Your task to perform on an android device: Open notification settings Image 0: 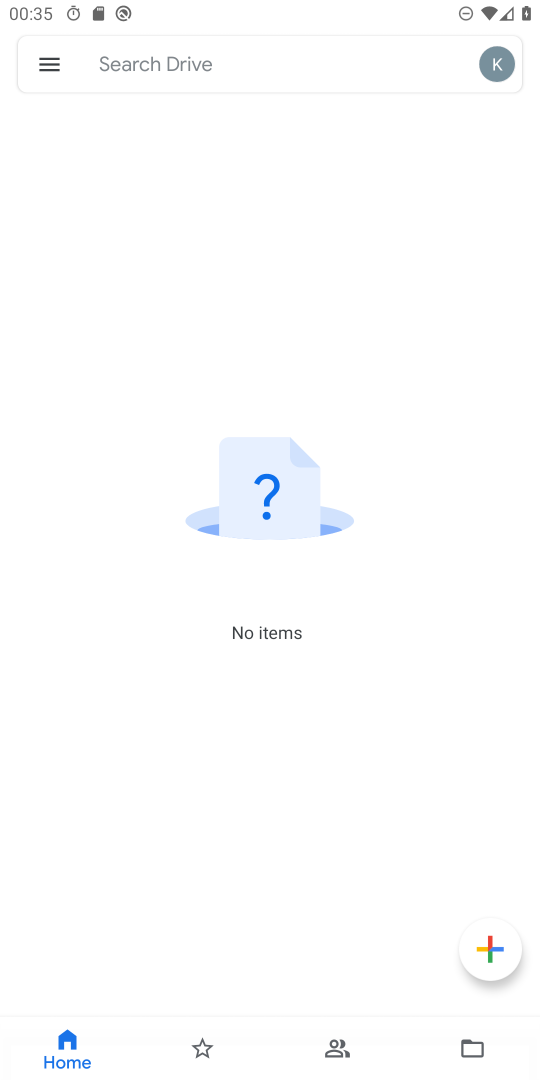
Step 0: press home button
Your task to perform on an android device: Open notification settings Image 1: 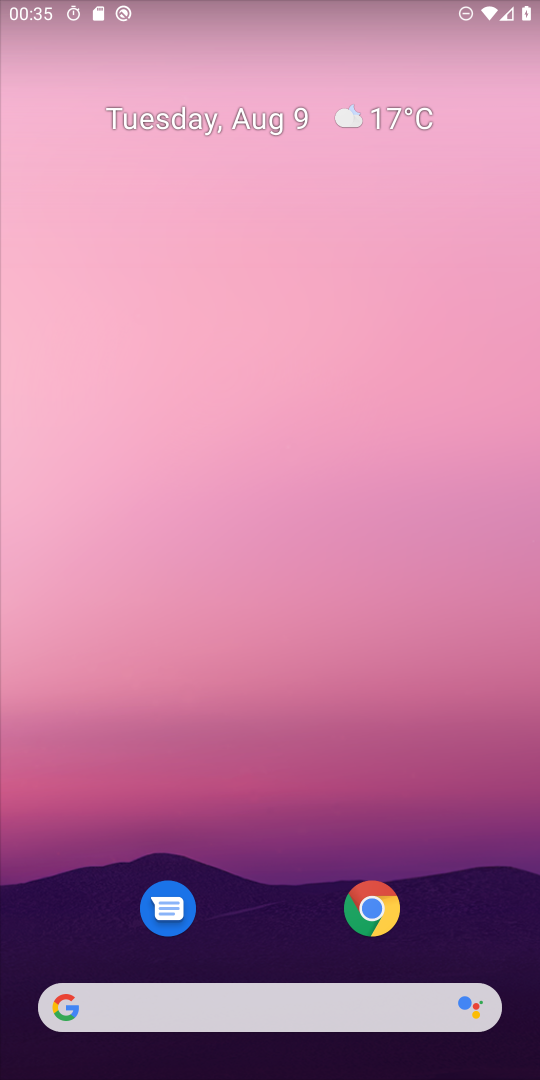
Step 1: drag from (485, 920) to (329, 85)
Your task to perform on an android device: Open notification settings Image 2: 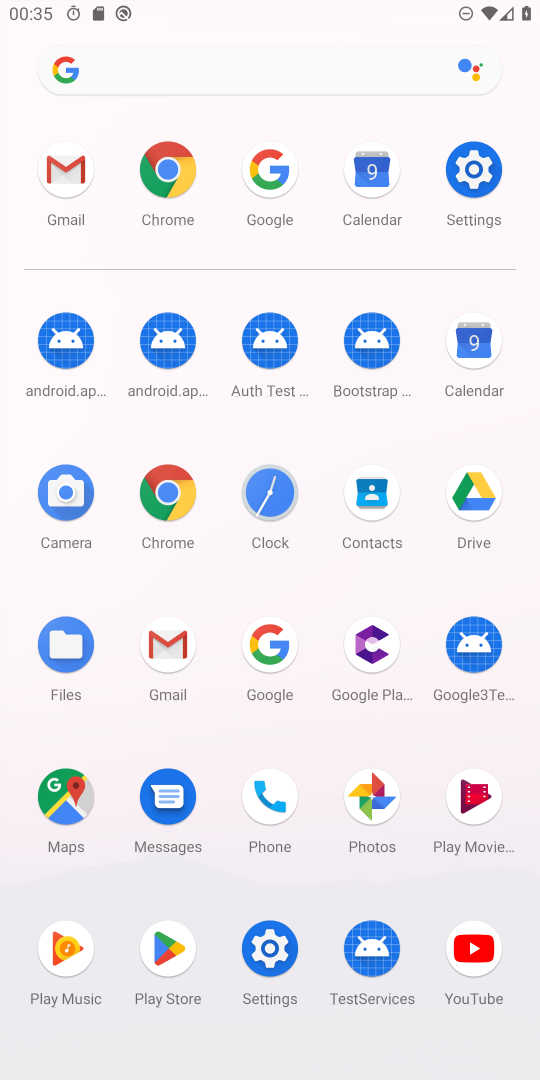
Step 2: click (467, 183)
Your task to perform on an android device: Open notification settings Image 3: 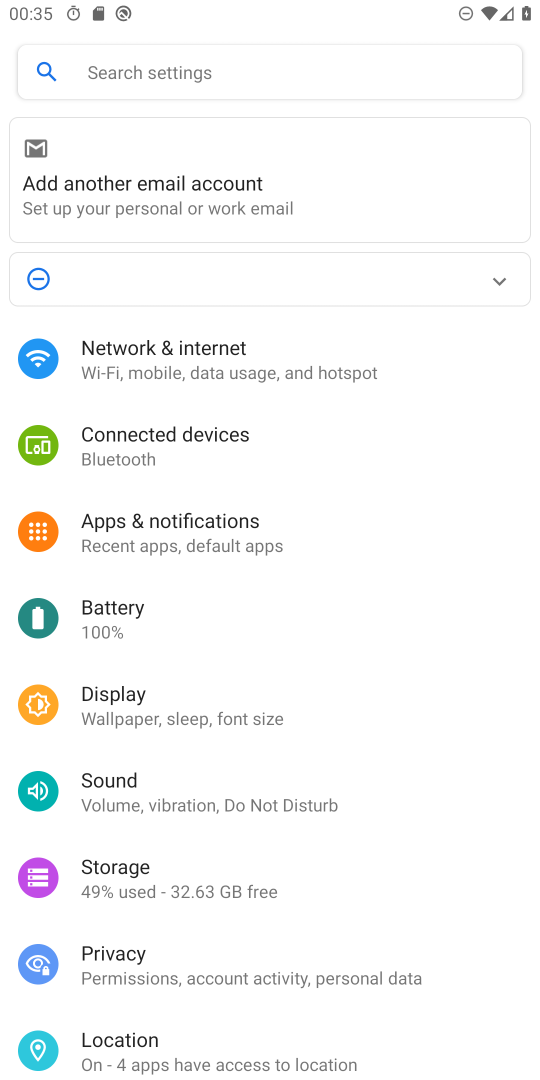
Step 3: click (244, 542)
Your task to perform on an android device: Open notification settings Image 4: 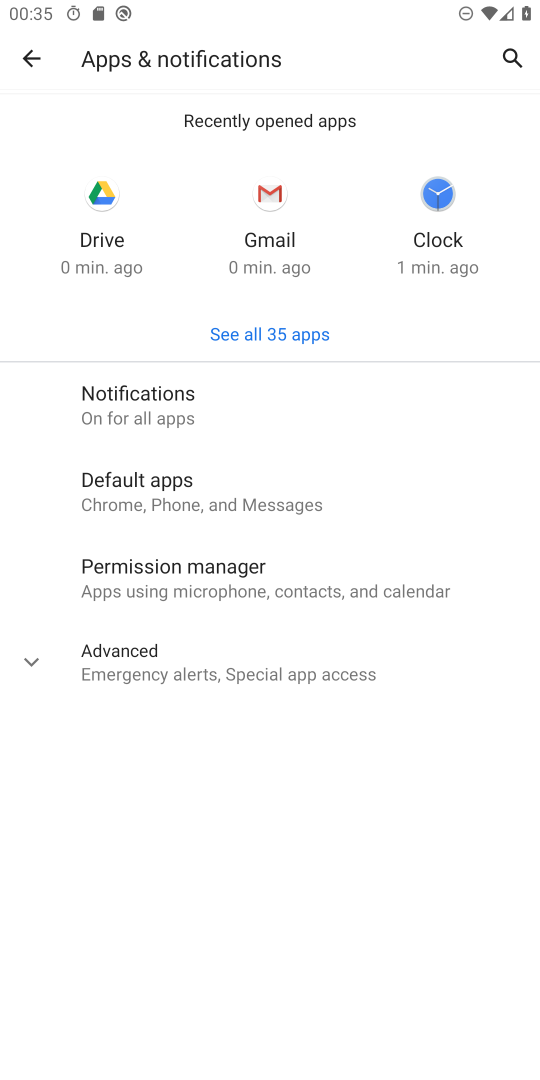
Step 4: click (226, 407)
Your task to perform on an android device: Open notification settings Image 5: 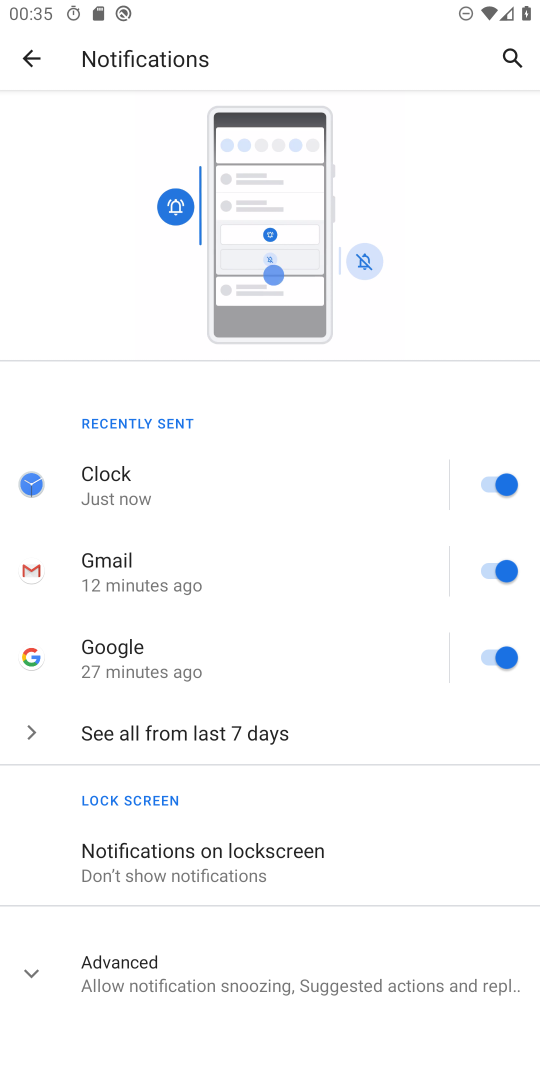
Step 5: task complete